Your task to perform on an android device: open a bookmark in the chrome app Image 0: 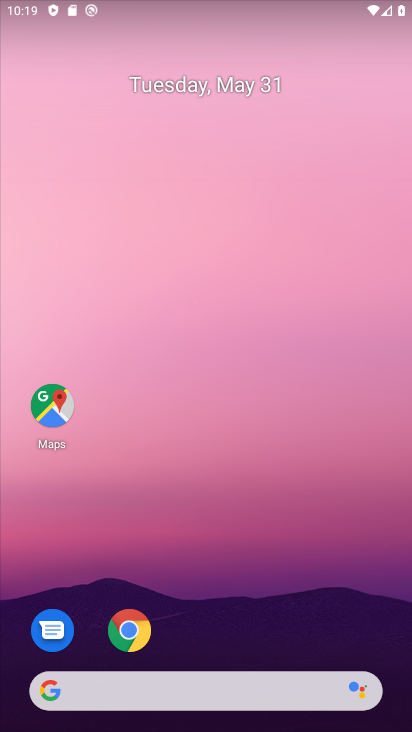
Step 0: click (134, 635)
Your task to perform on an android device: open a bookmark in the chrome app Image 1: 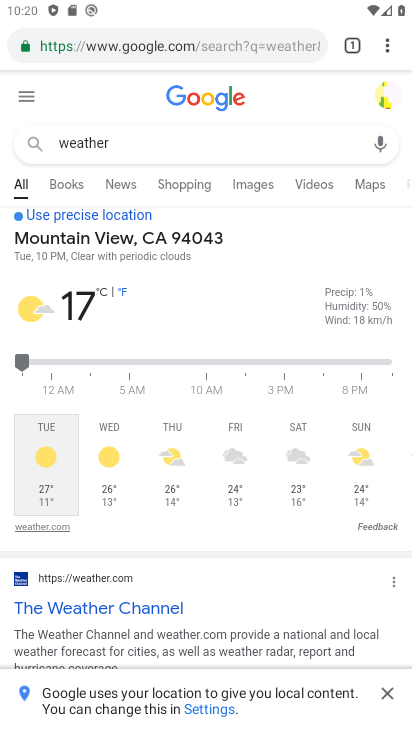
Step 1: click (386, 50)
Your task to perform on an android device: open a bookmark in the chrome app Image 2: 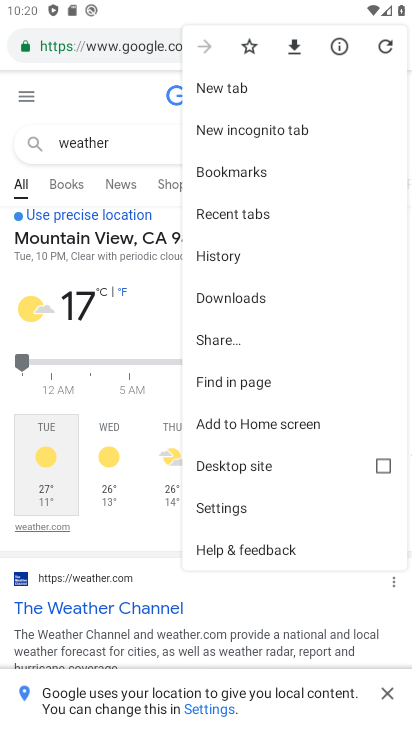
Step 2: click (229, 162)
Your task to perform on an android device: open a bookmark in the chrome app Image 3: 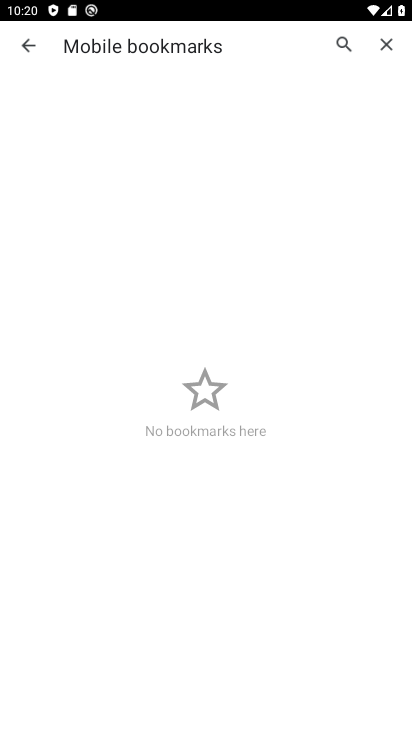
Step 3: task complete